Your task to perform on an android device: Search for seafood restaurants on Google Maps Image 0: 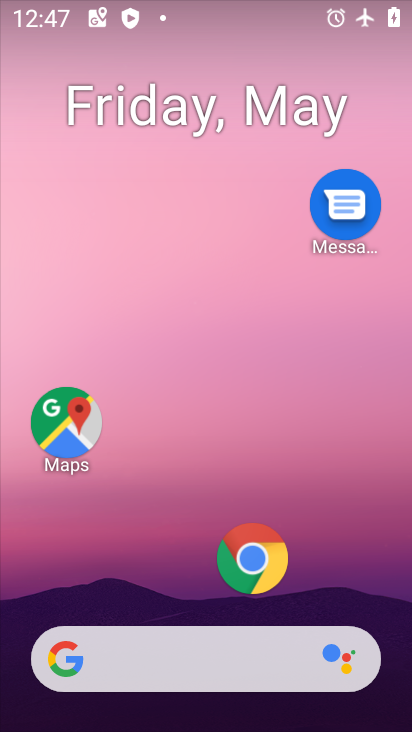
Step 0: drag from (164, 617) to (288, 51)
Your task to perform on an android device: Search for seafood restaurants on Google Maps Image 1: 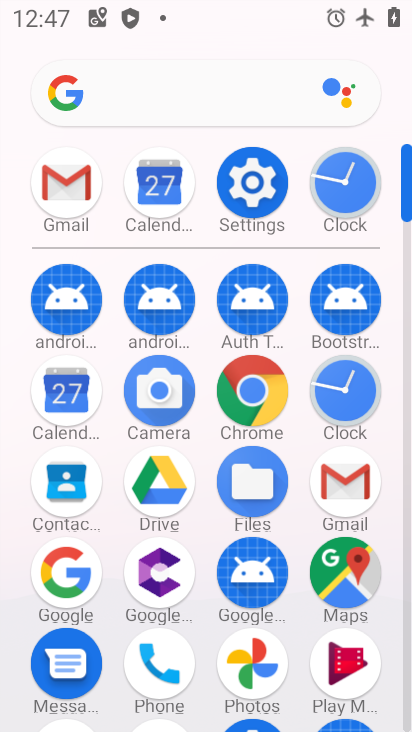
Step 1: drag from (236, 519) to (276, 248)
Your task to perform on an android device: Search for seafood restaurants on Google Maps Image 2: 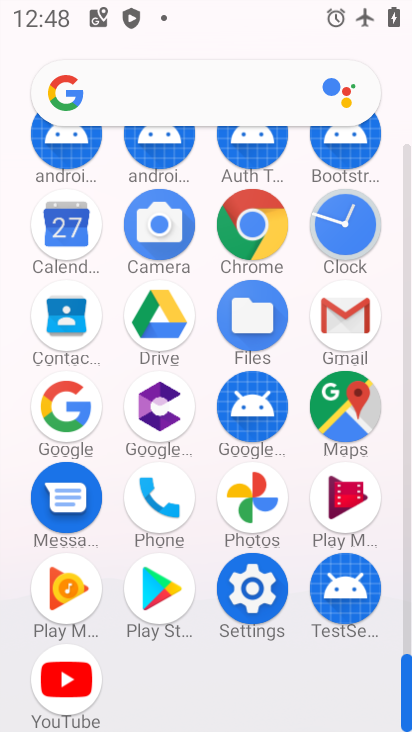
Step 2: click (346, 435)
Your task to perform on an android device: Search for seafood restaurants on Google Maps Image 3: 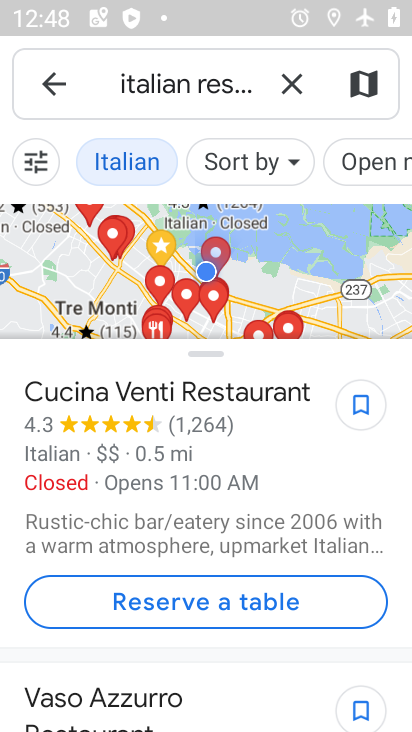
Step 3: click (291, 88)
Your task to perform on an android device: Search for seafood restaurants on Google Maps Image 4: 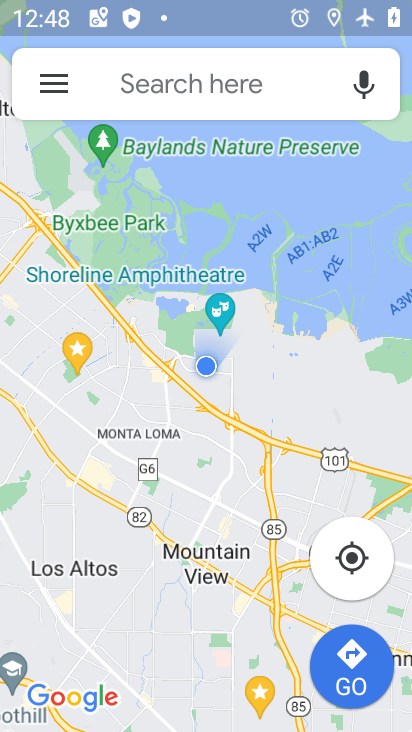
Step 4: click (218, 76)
Your task to perform on an android device: Search for seafood restaurants on Google Maps Image 5: 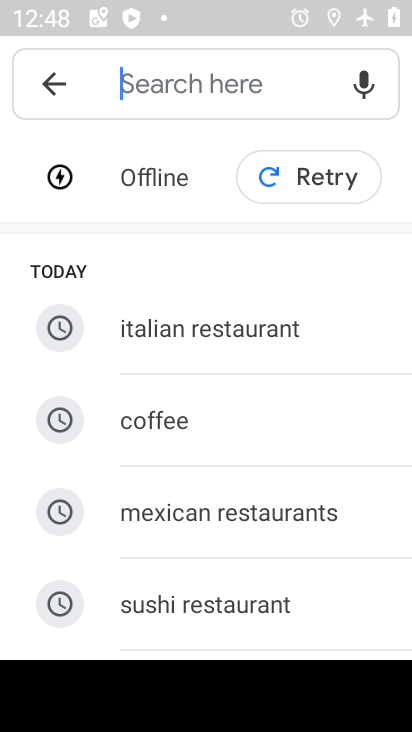
Step 5: drag from (201, 508) to (206, 329)
Your task to perform on an android device: Search for seafood restaurants on Google Maps Image 6: 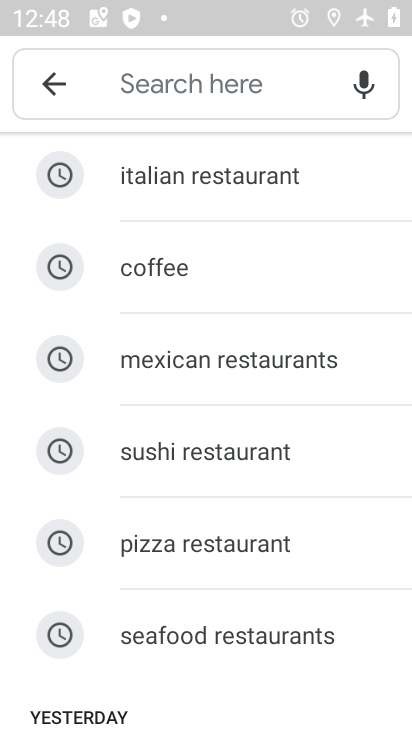
Step 6: click (226, 634)
Your task to perform on an android device: Search for seafood restaurants on Google Maps Image 7: 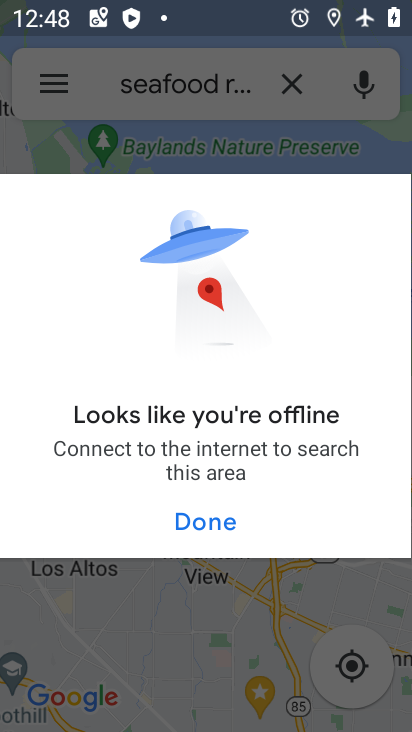
Step 7: task complete